Your task to perform on an android device: change the upload size in google photos Image 0: 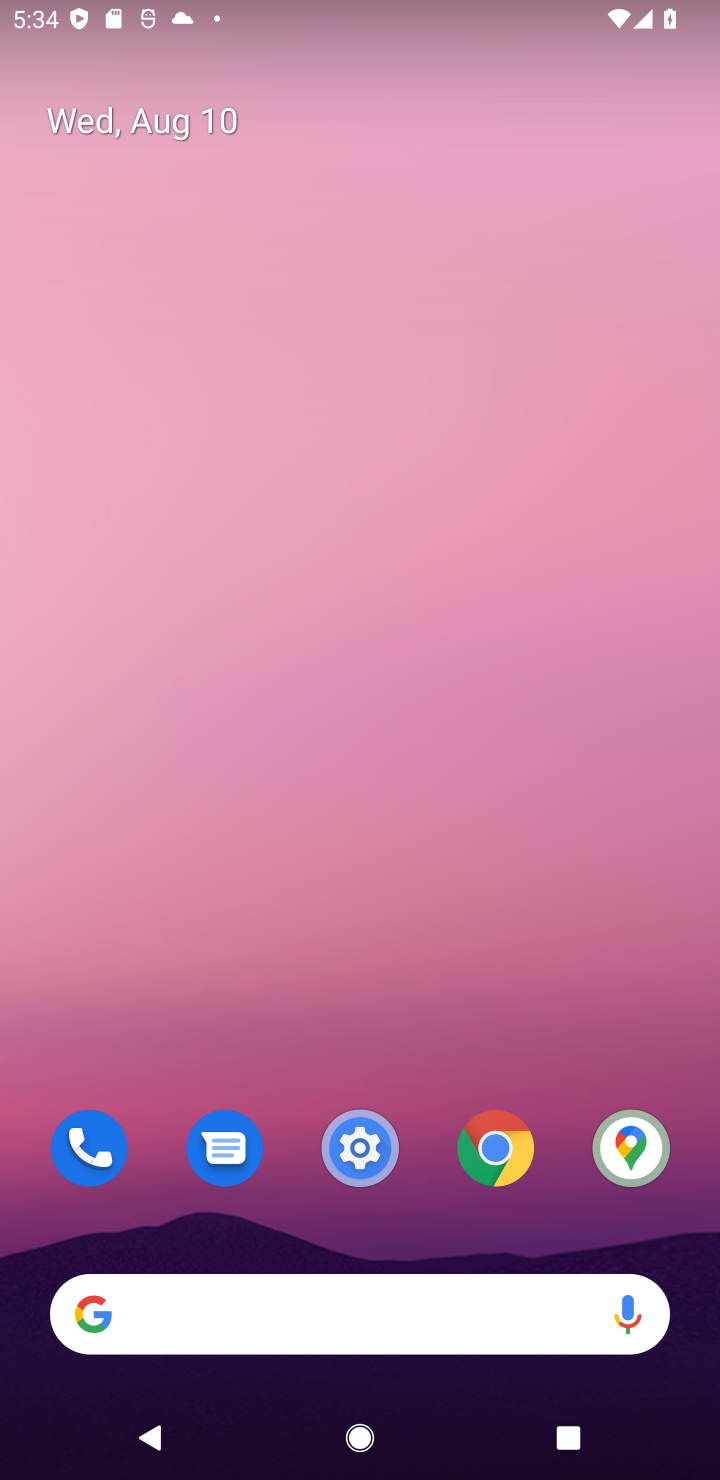
Step 0: drag from (423, 1212) to (394, 196)
Your task to perform on an android device: change the upload size in google photos Image 1: 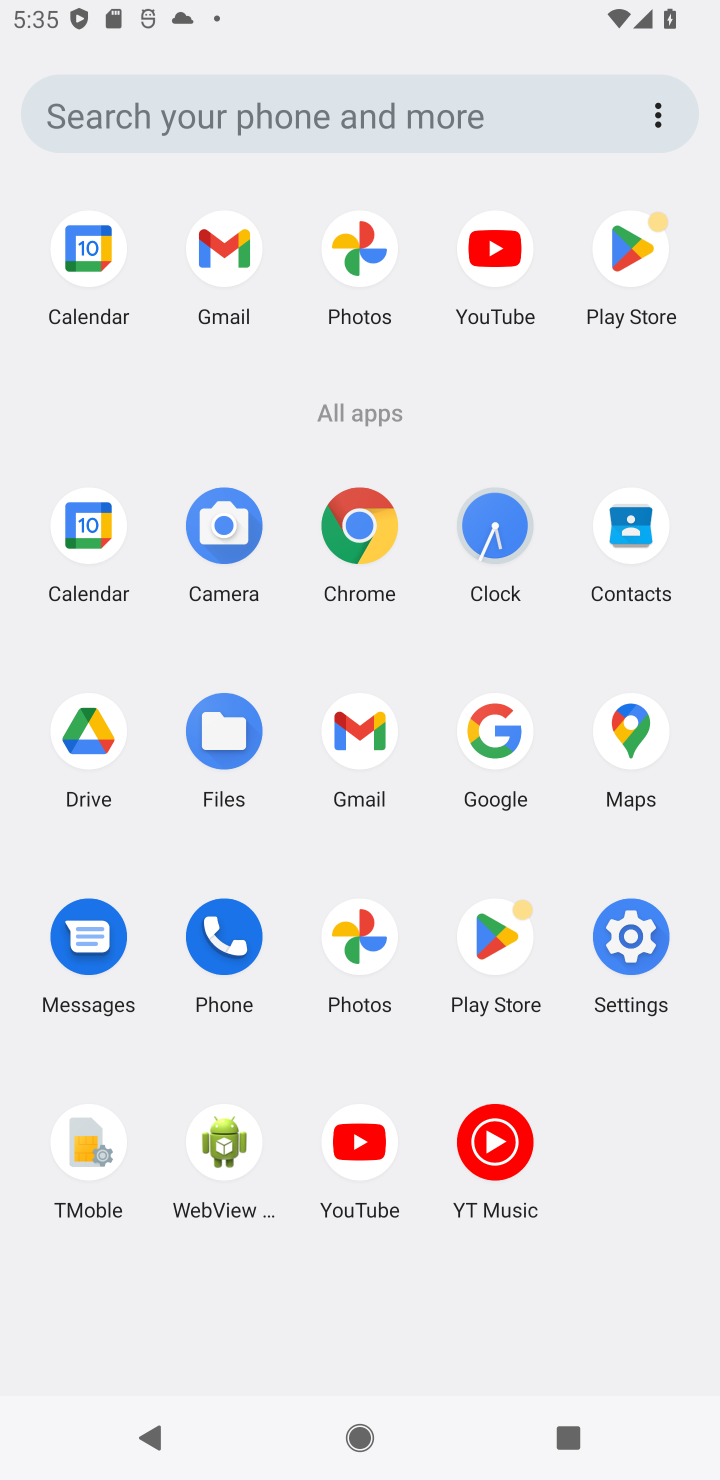
Step 1: click (359, 957)
Your task to perform on an android device: change the upload size in google photos Image 2: 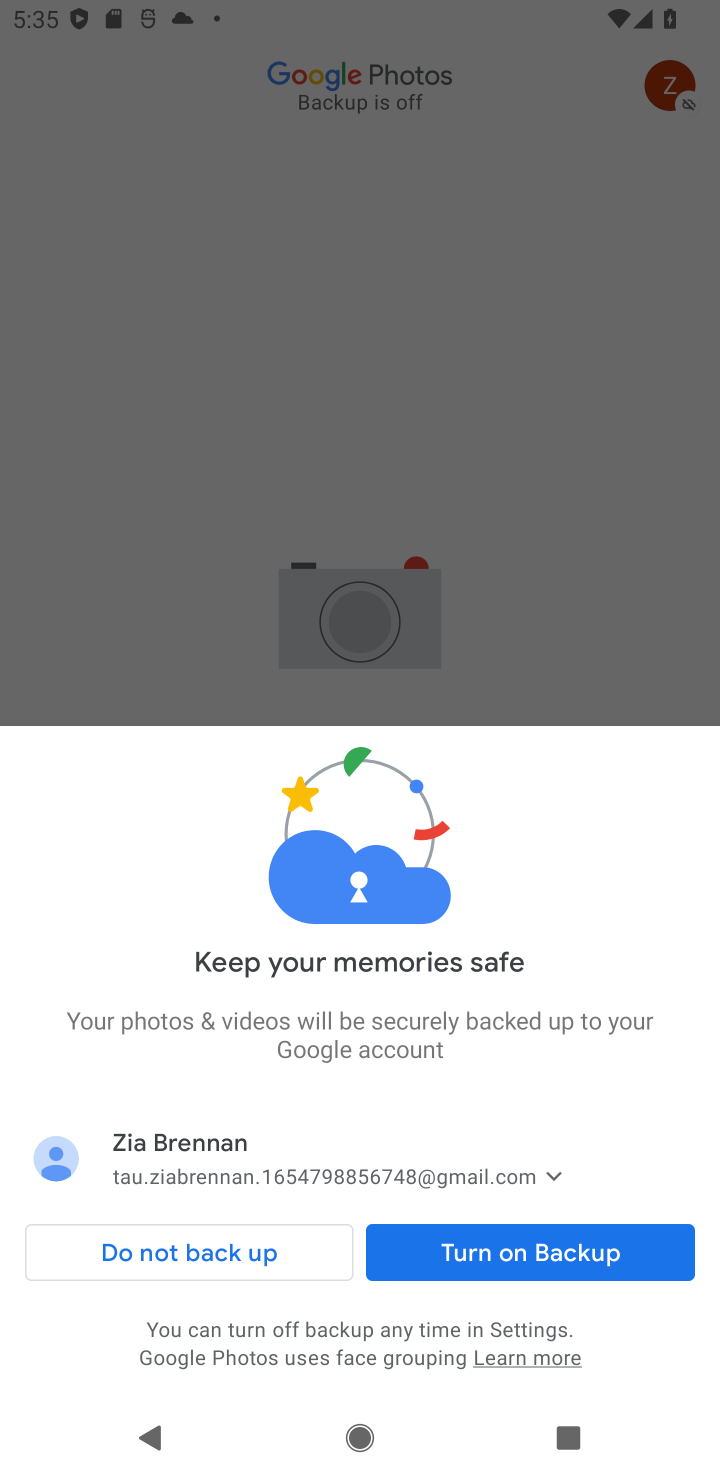
Step 2: click (410, 1240)
Your task to perform on an android device: change the upload size in google photos Image 3: 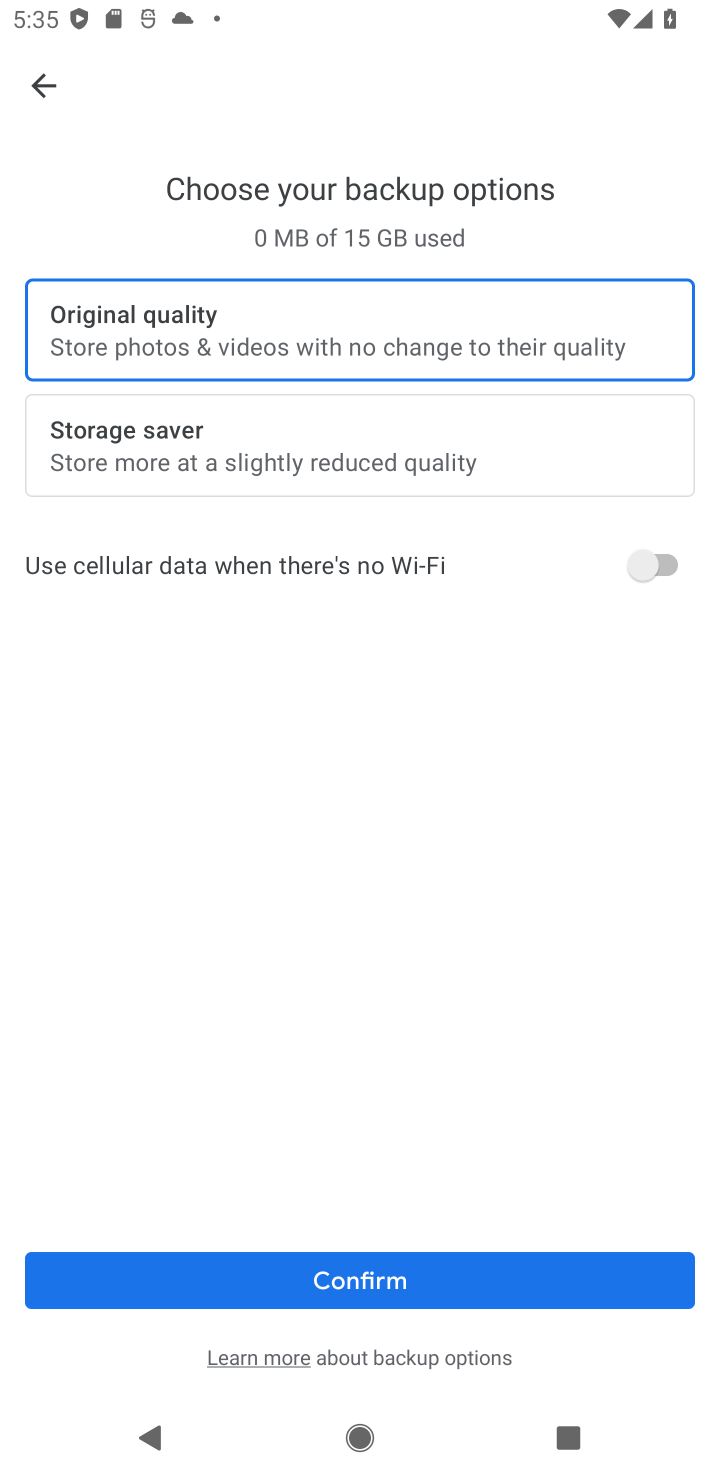
Step 3: click (369, 364)
Your task to perform on an android device: change the upload size in google photos Image 4: 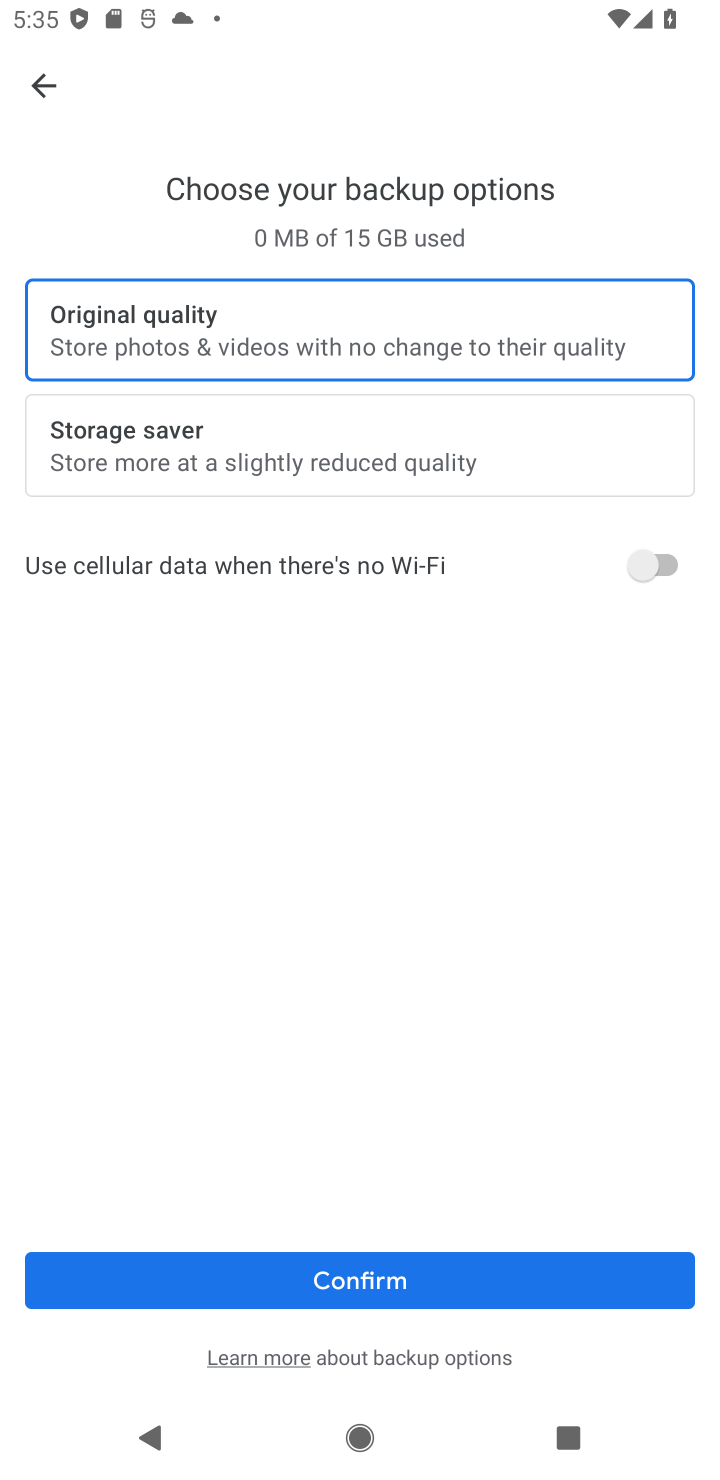
Step 4: click (424, 1274)
Your task to perform on an android device: change the upload size in google photos Image 5: 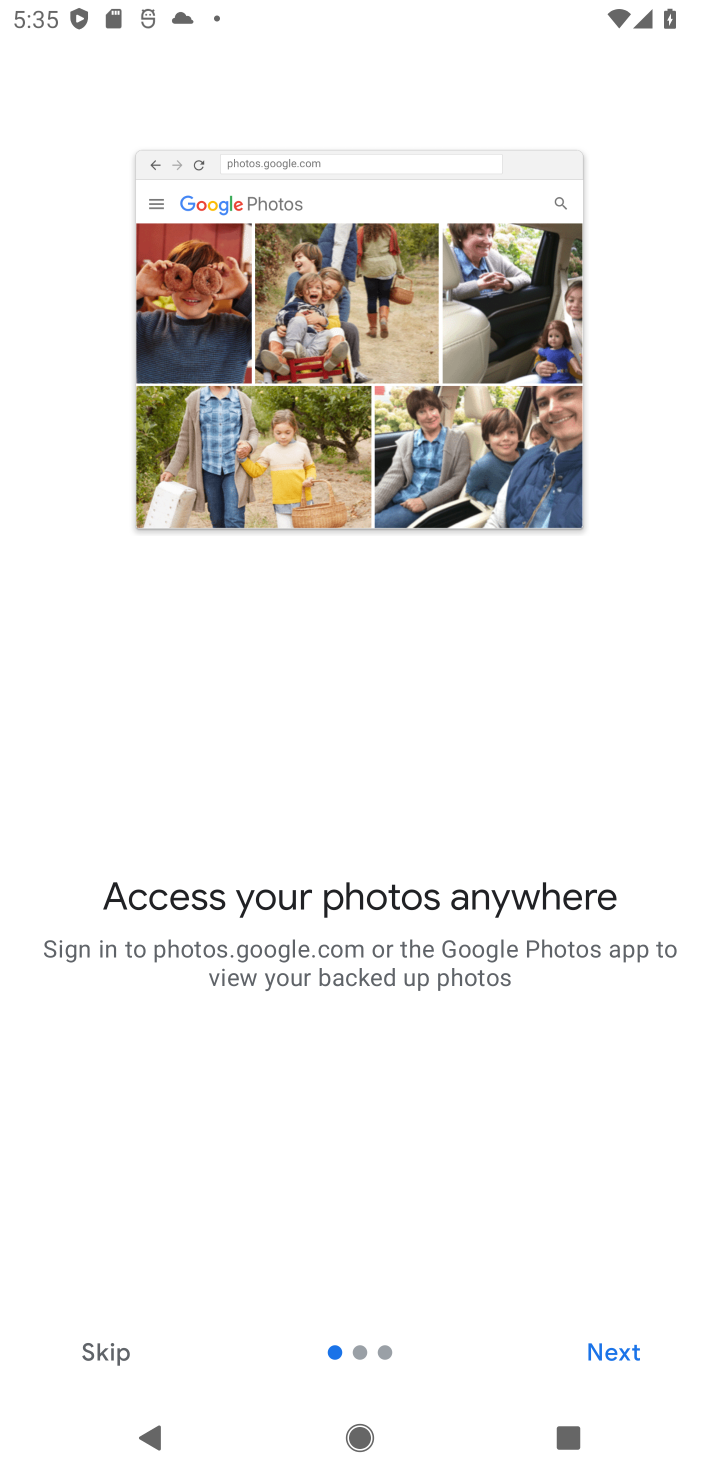
Step 5: click (102, 1352)
Your task to perform on an android device: change the upload size in google photos Image 6: 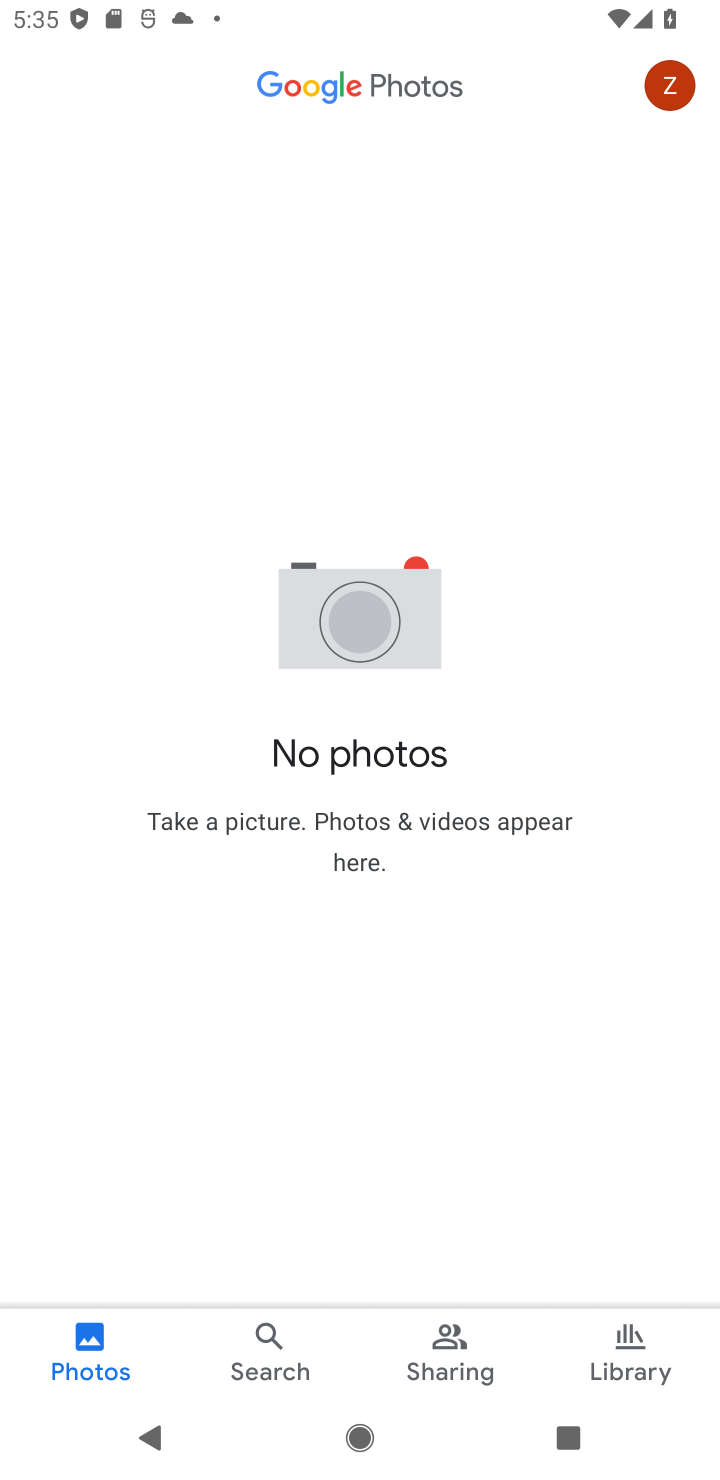
Step 6: click (644, 1358)
Your task to perform on an android device: change the upload size in google photos Image 7: 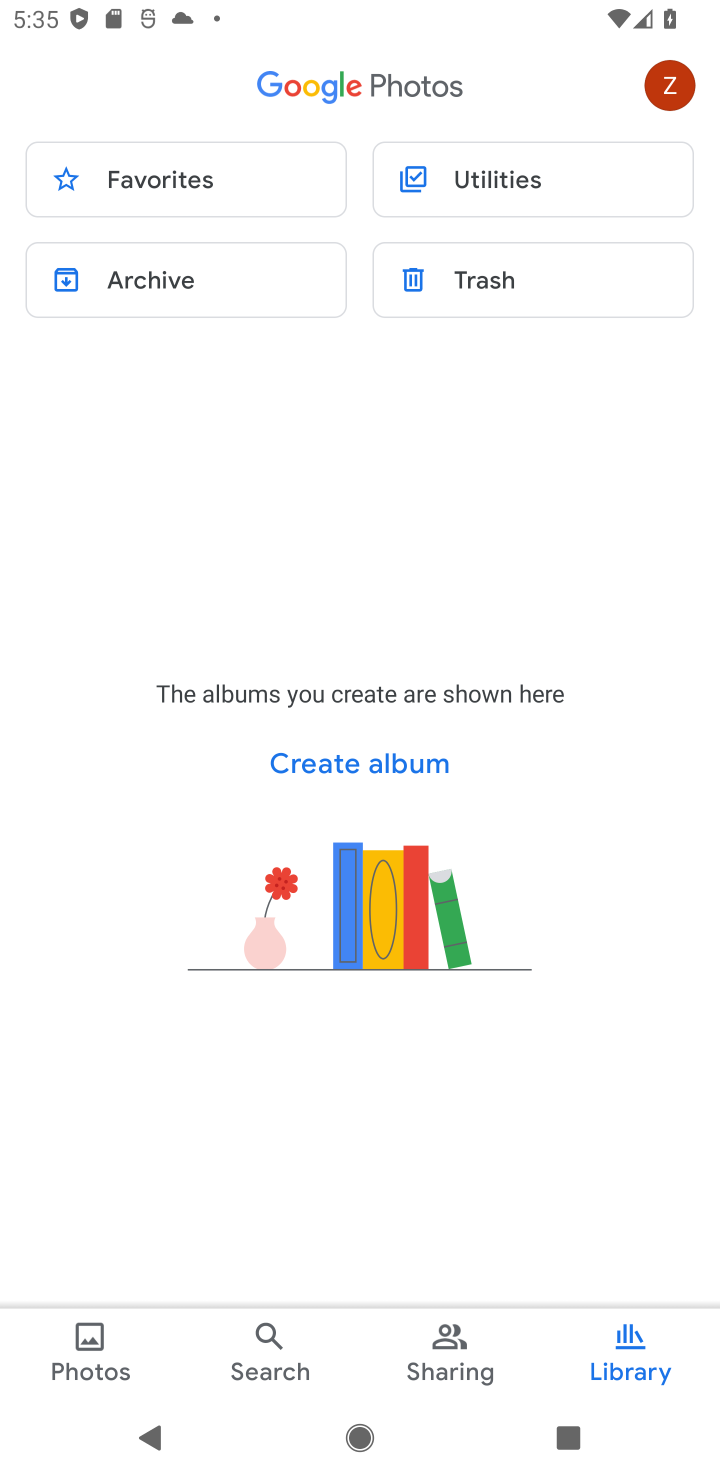
Step 7: click (667, 77)
Your task to perform on an android device: change the upload size in google photos Image 8: 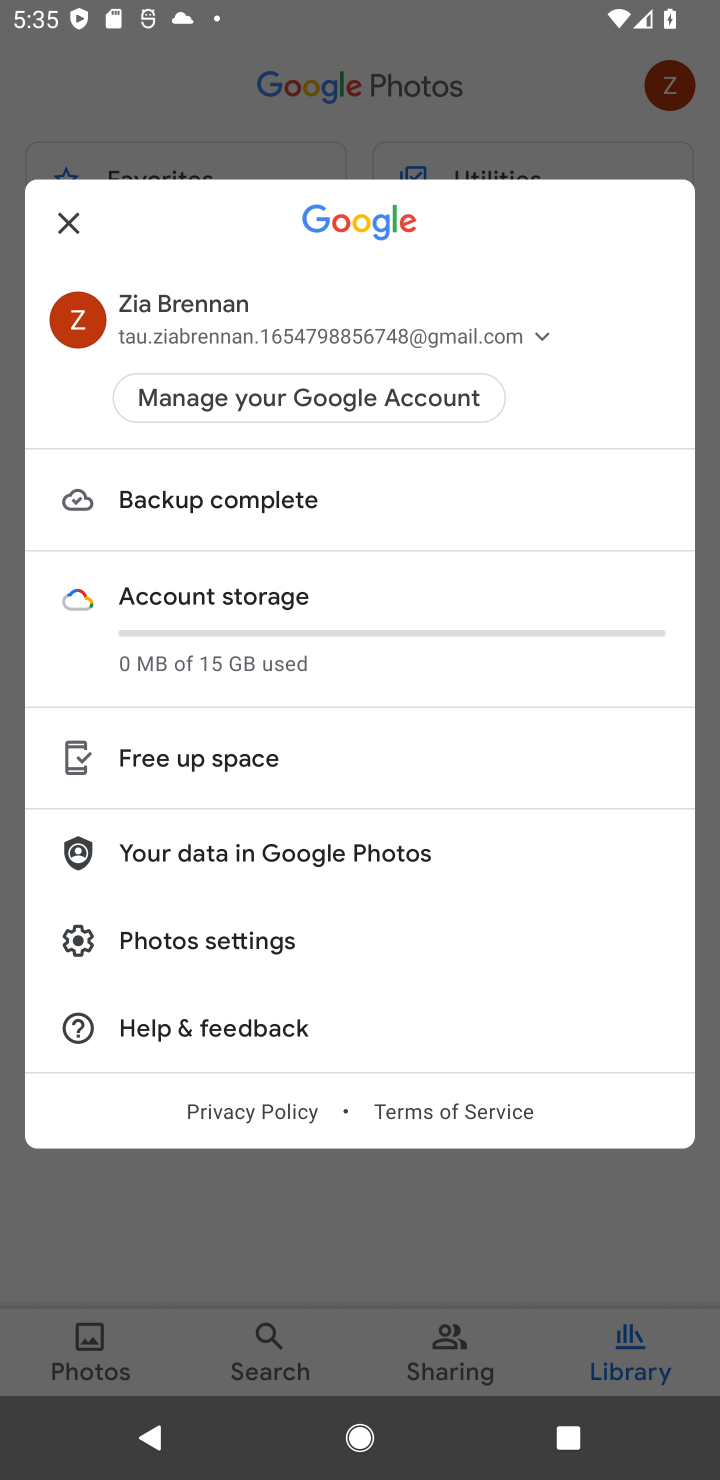
Step 8: click (172, 958)
Your task to perform on an android device: change the upload size in google photos Image 9: 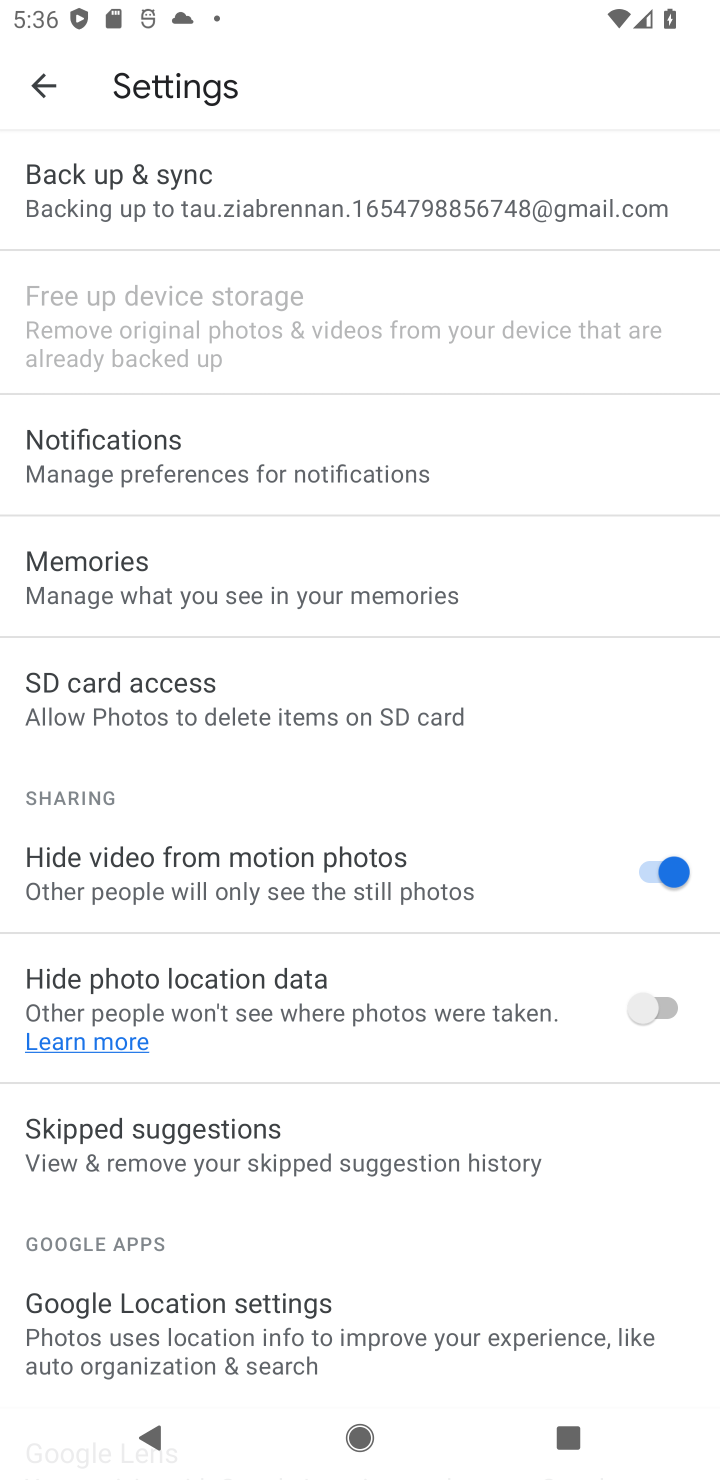
Step 9: drag from (627, 1036) to (524, 1230)
Your task to perform on an android device: change the upload size in google photos Image 10: 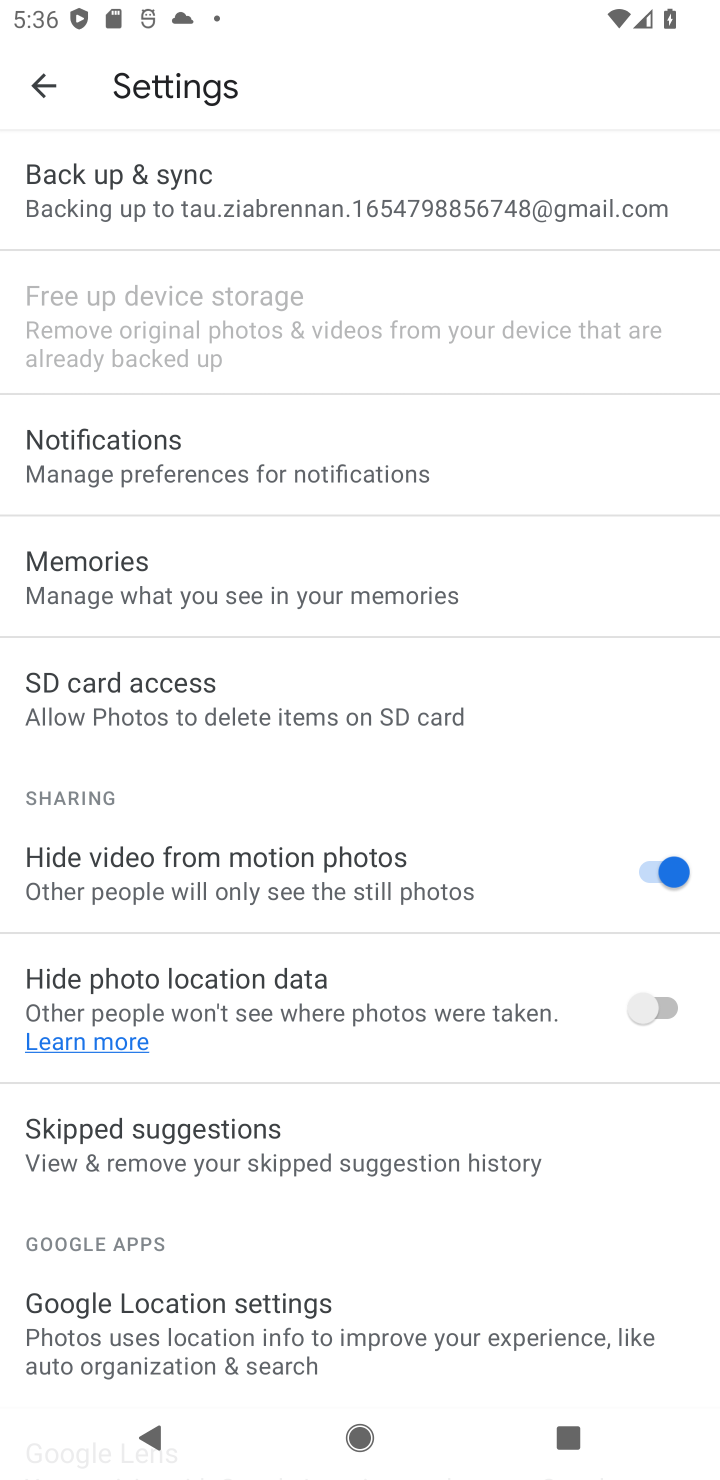
Step 10: click (190, 213)
Your task to perform on an android device: change the upload size in google photos Image 11: 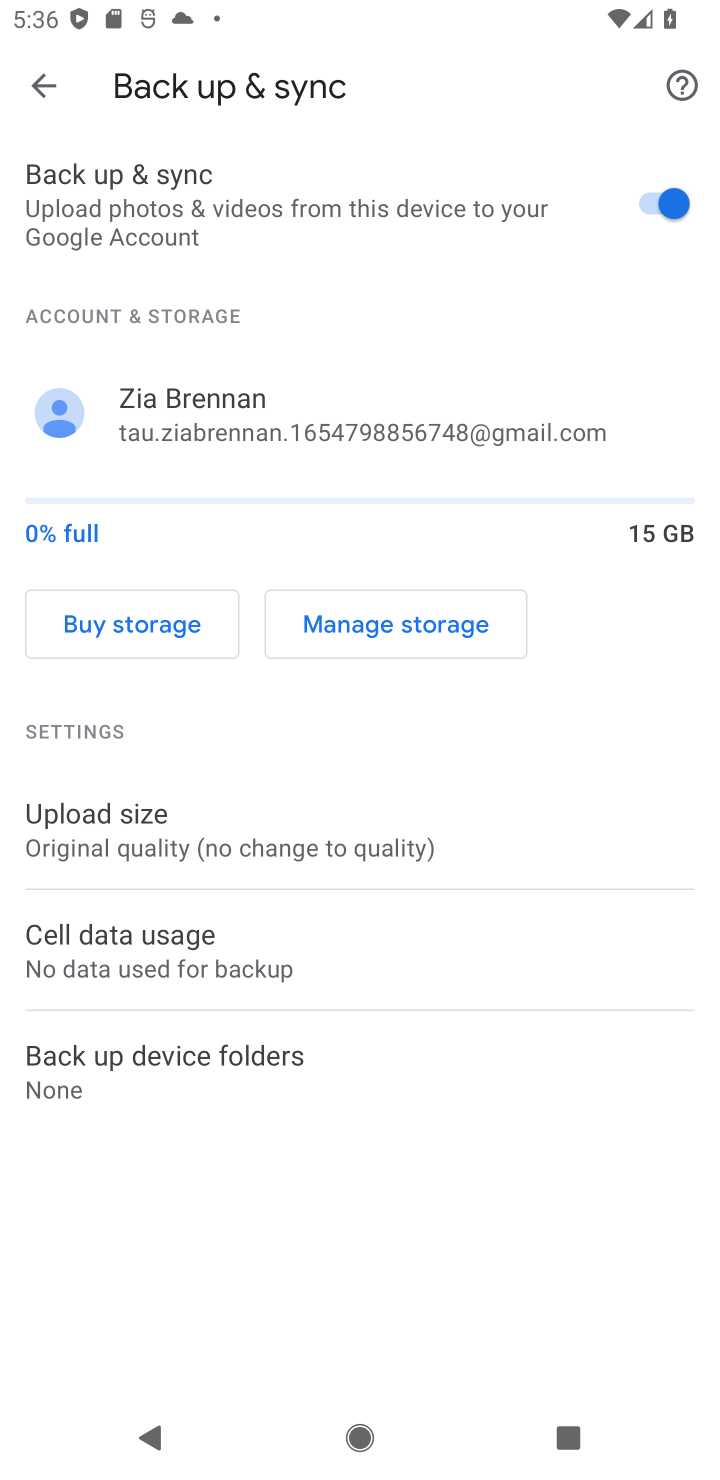
Step 11: click (216, 833)
Your task to perform on an android device: change the upload size in google photos Image 12: 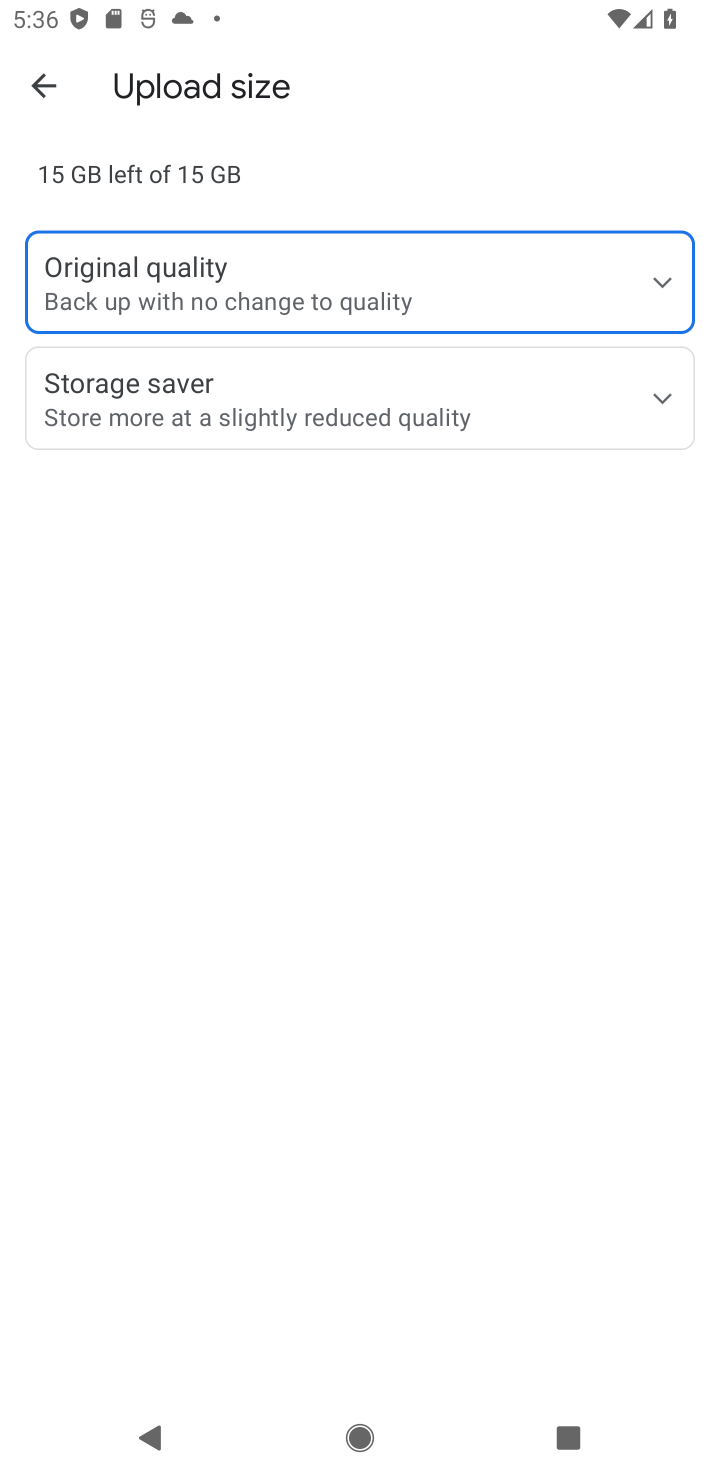
Step 12: click (300, 413)
Your task to perform on an android device: change the upload size in google photos Image 13: 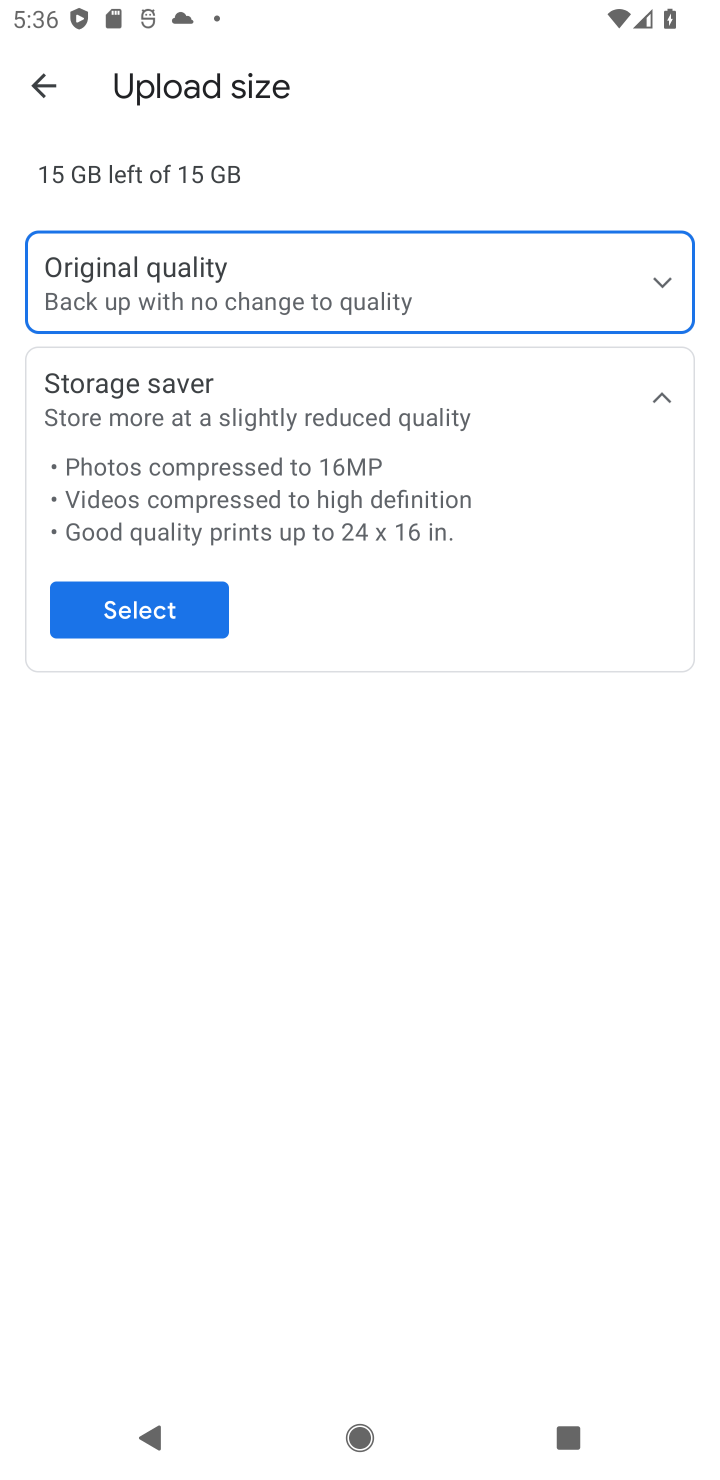
Step 13: click (504, 303)
Your task to perform on an android device: change the upload size in google photos Image 14: 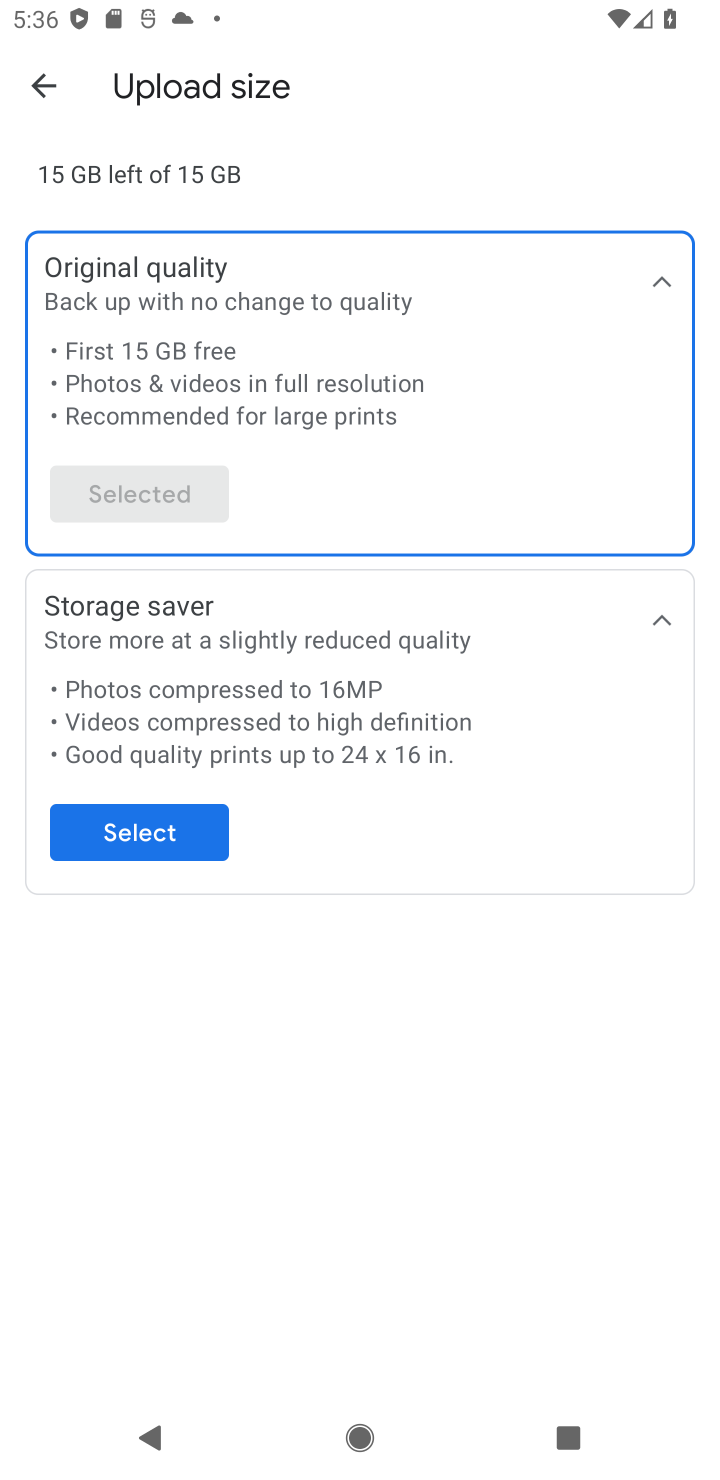
Step 14: click (125, 839)
Your task to perform on an android device: change the upload size in google photos Image 15: 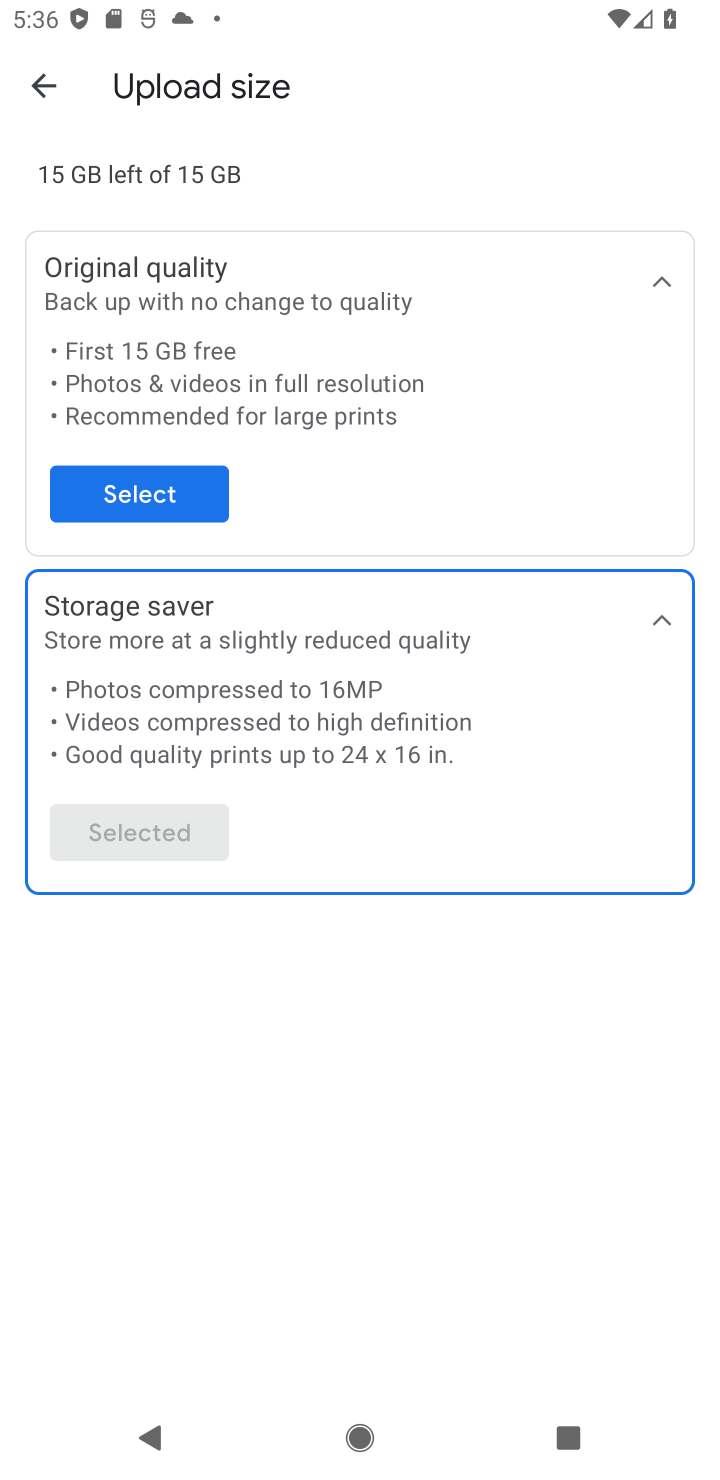
Step 15: task complete